Your task to perform on an android device: Search for Mexican restaurants on Maps Image 0: 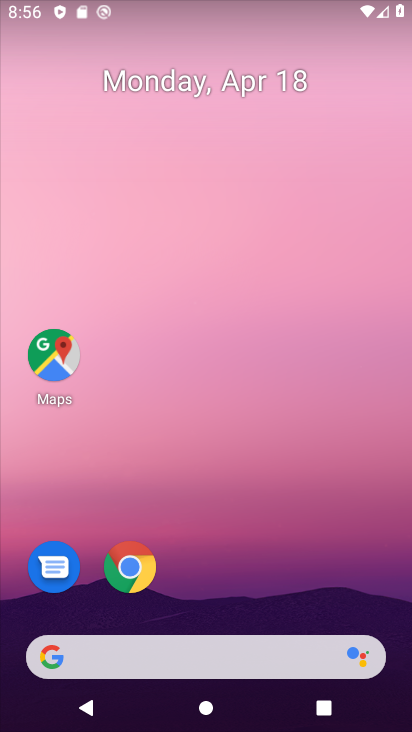
Step 0: click (60, 352)
Your task to perform on an android device: Search for Mexican restaurants on Maps Image 1: 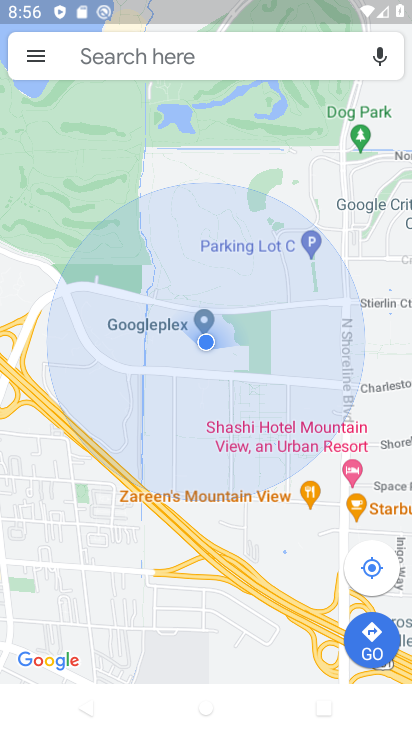
Step 1: click (168, 53)
Your task to perform on an android device: Search for Mexican restaurants on Maps Image 2: 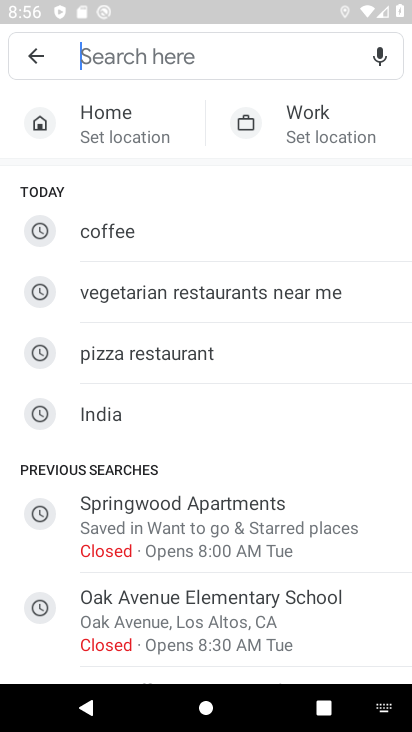
Step 2: type "Mexican restaurants"
Your task to perform on an android device: Search for Mexican restaurants on Maps Image 3: 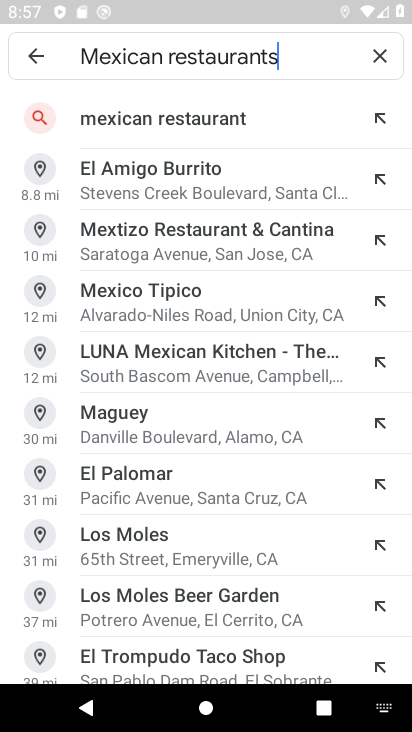
Step 3: click (188, 120)
Your task to perform on an android device: Search for Mexican restaurants on Maps Image 4: 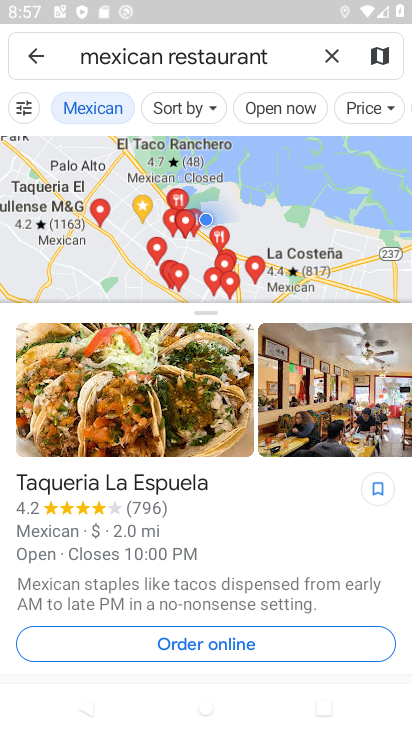
Step 4: task complete